Your task to perform on an android device: choose inbox layout in the gmail app Image 0: 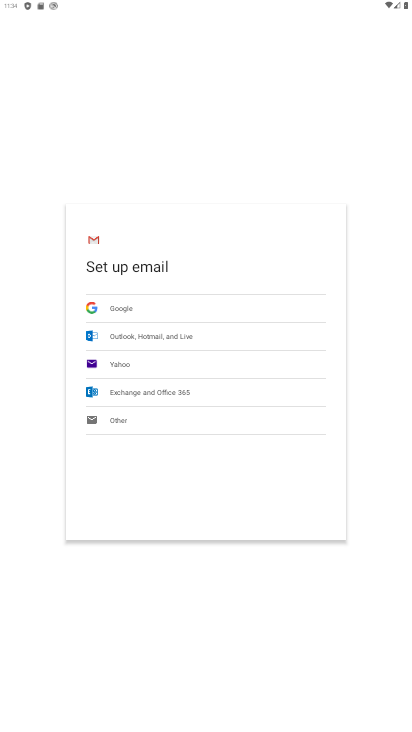
Step 0: press home button
Your task to perform on an android device: choose inbox layout in the gmail app Image 1: 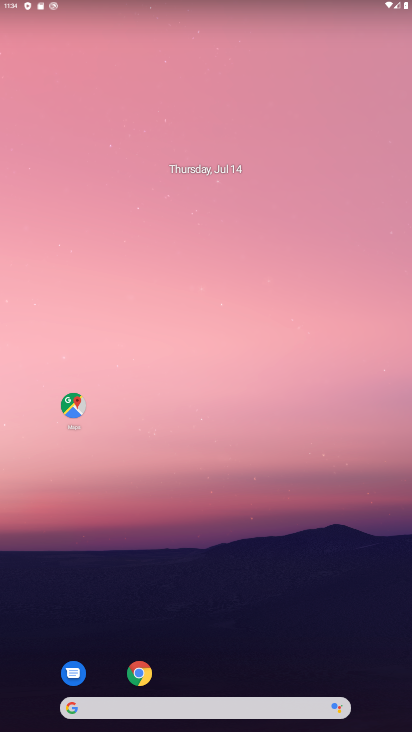
Step 1: drag from (317, 654) to (283, 269)
Your task to perform on an android device: choose inbox layout in the gmail app Image 2: 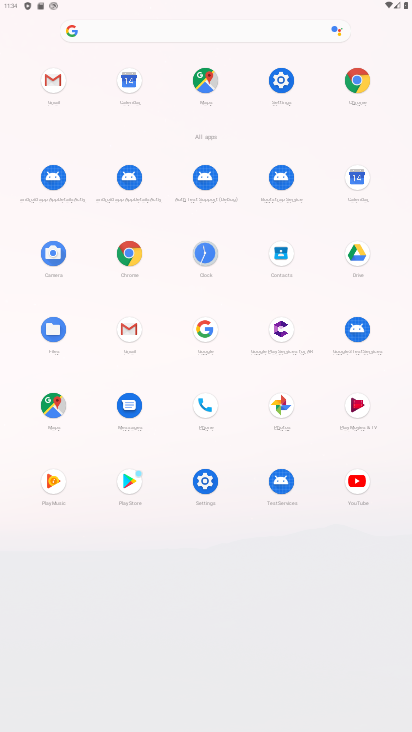
Step 2: click (127, 325)
Your task to perform on an android device: choose inbox layout in the gmail app Image 3: 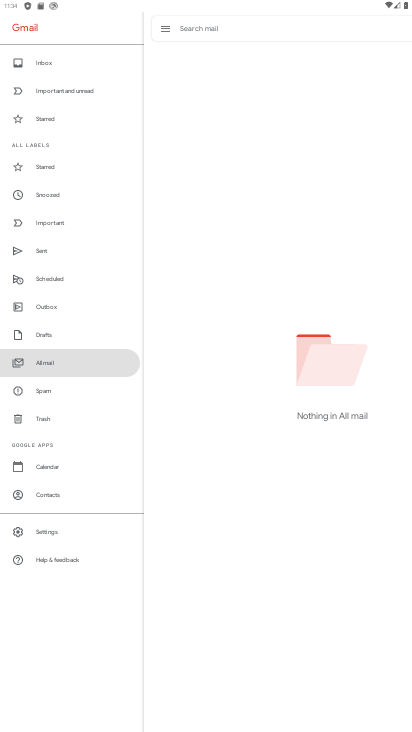
Step 3: click (76, 532)
Your task to perform on an android device: choose inbox layout in the gmail app Image 4: 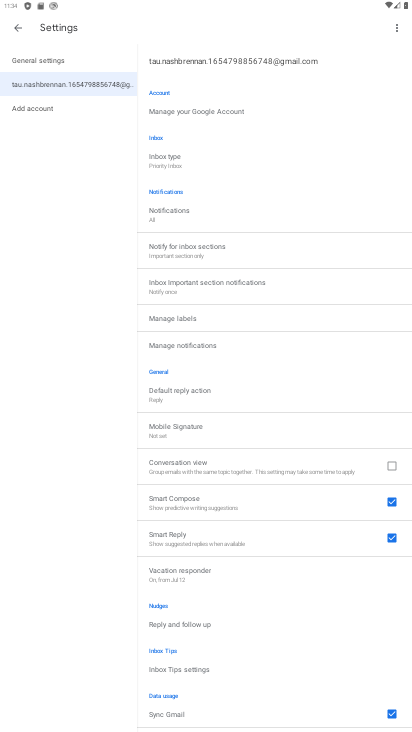
Step 4: click (200, 159)
Your task to perform on an android device: choose inbox layout in the gmail app Image 5: 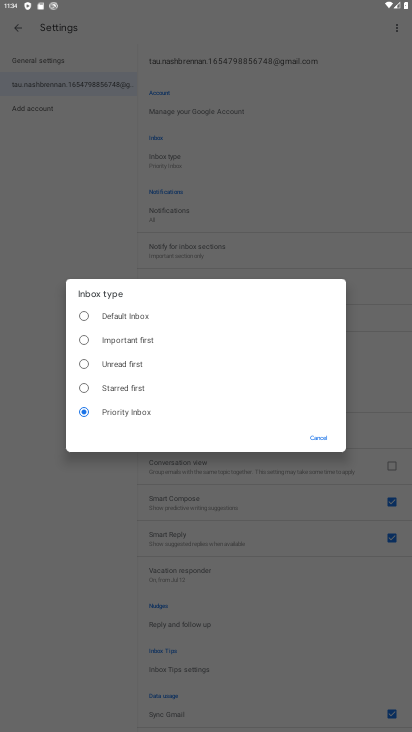
Step 5: click (119, 314)
Your task to perform on an android device: choose inbox layout in the gmail app Image 6: 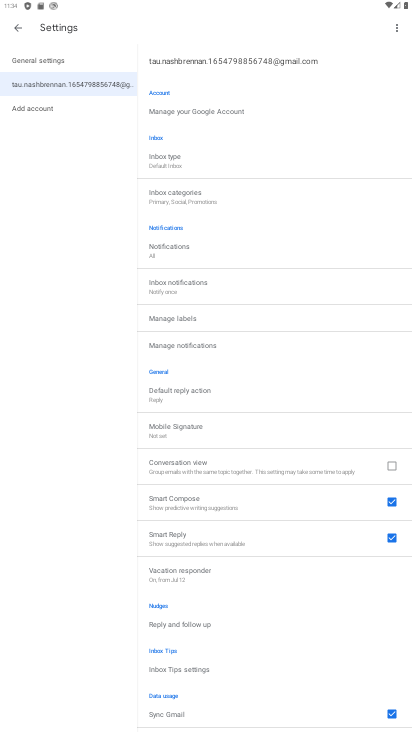
Step 6: task complete